Your task to perform on an android device: Search for Italian restaurants on Maps Image 0: 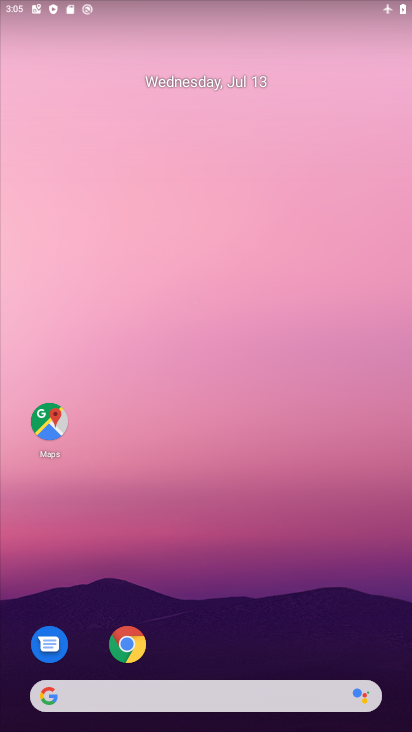
Step 0: drag from (359, 550) to (375, 89)
Your task to perform on an android device: Search for Italian restaurants on Maps Image 1: 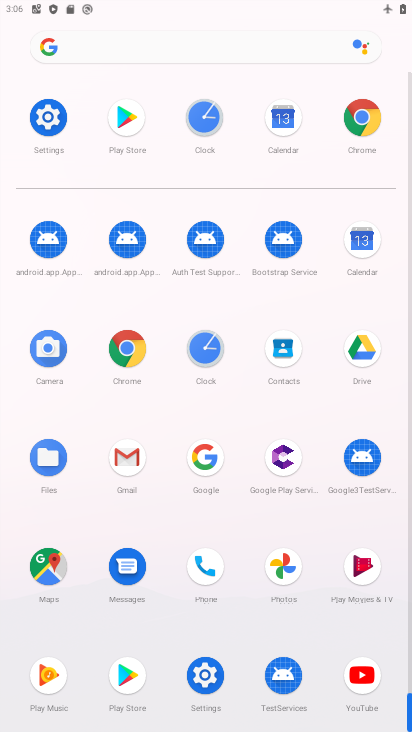
Step 1: click (57, 556)
Your task to perform on an android device: Search for Italian restaurants on Maps Image 2: 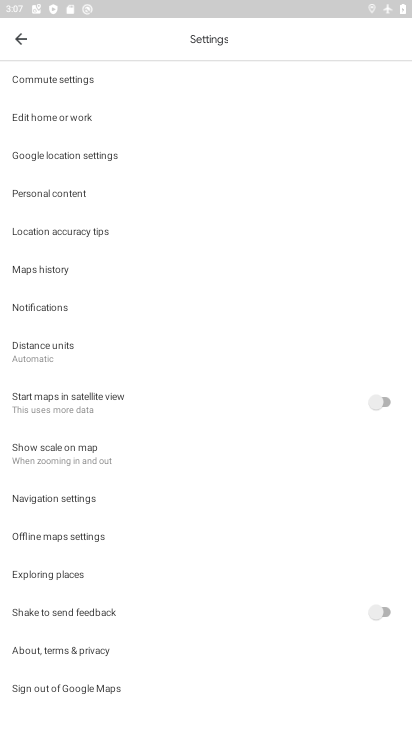
Step 2: click (23, 40)
Your task to perform on an android device: Search for Italian restaurants on Maps Image 3: 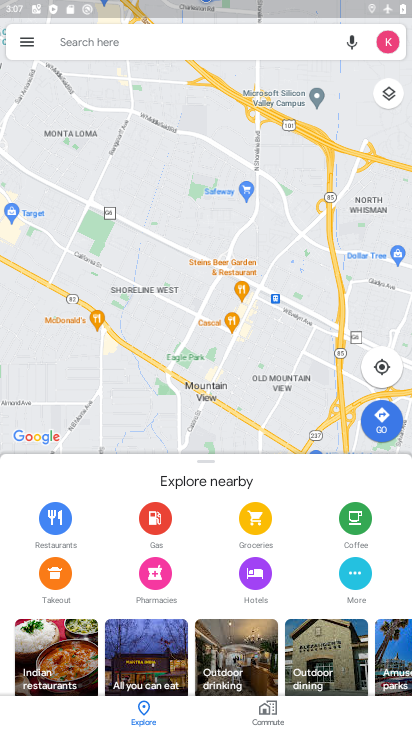
Step 3: click (168, 36)
Your task to perform on an android device: Search for Italian restaurants on Maps Image 4: 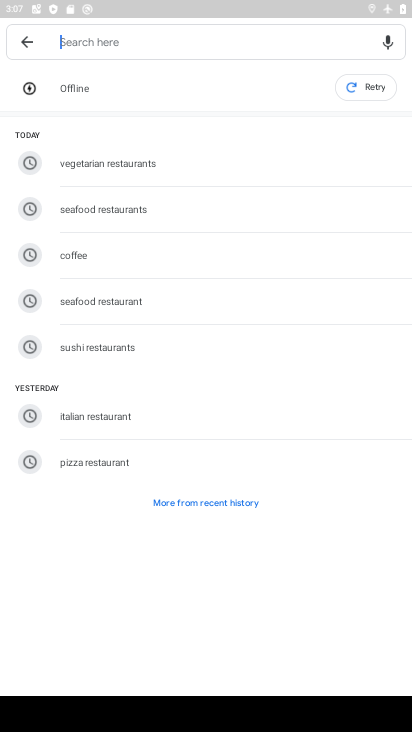
Step 4: type "Italian restaurants"
Your task to perform on an android device: Search for Italian restaurants on Maps Image 5: 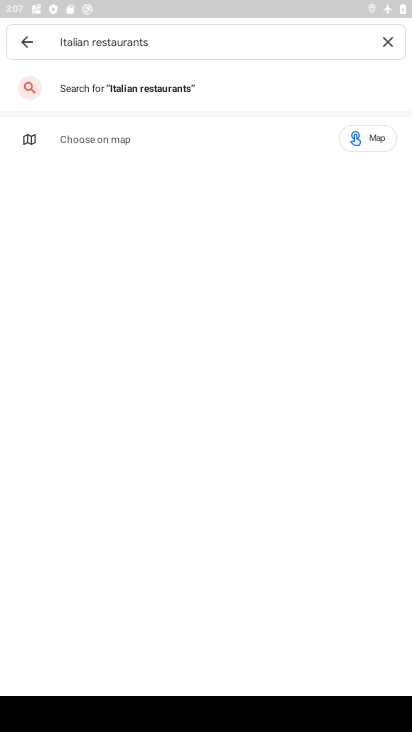
Step 5: press enter
Your task to perform on an android device: Search for Italian restaurants on Maps Image 6: 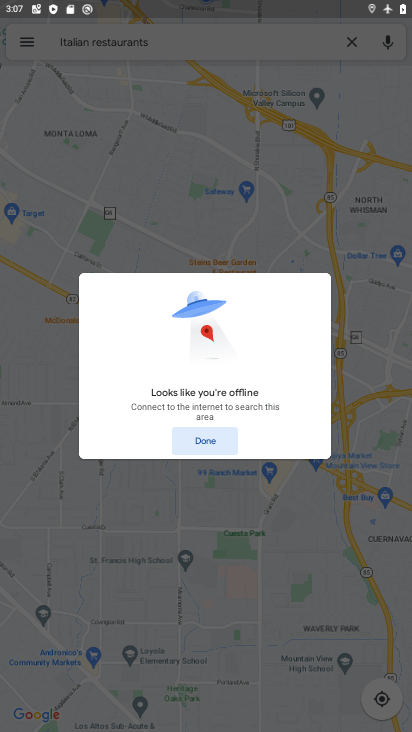
Step 6: task complete